Your task to perform on an android device: Open Maps and search for coffee Image 0: 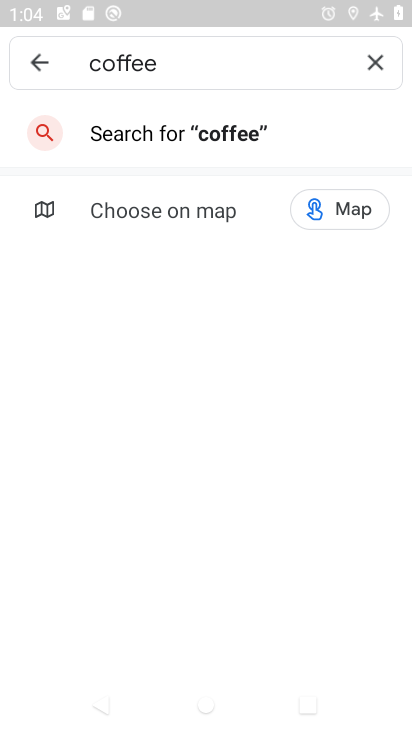
Step 0: press home button
Your task to perform on an android device: Open Maps and search for coffee Image 1: 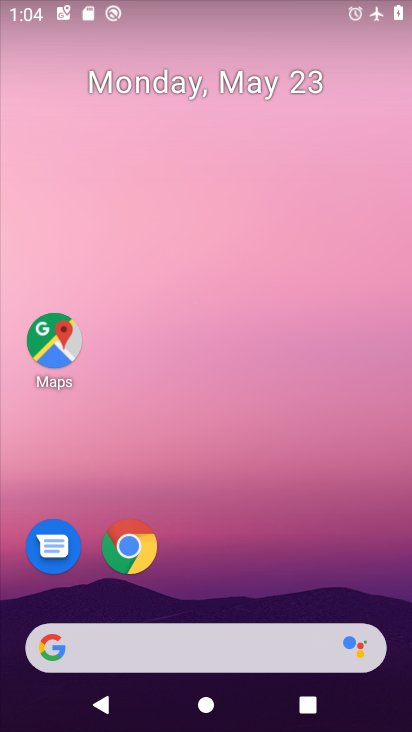
Step 1: click (57, 366)
Your task to perform on an android device: Open Maps and search for coffee Image 2: 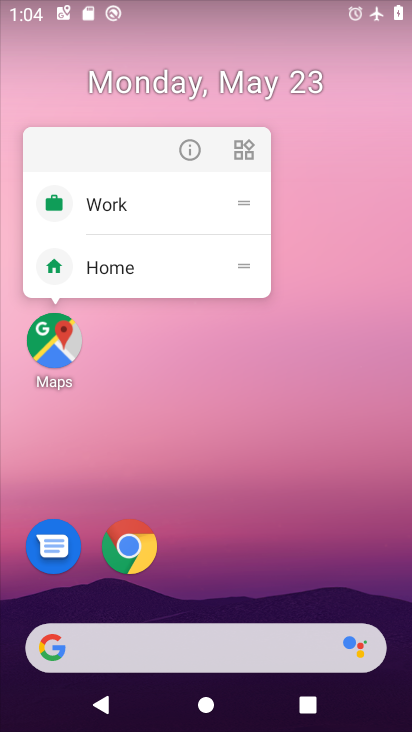
Step 2: click (67, 372)
Your task to perform on an android device: Open Maps and search for coffee Image 3: 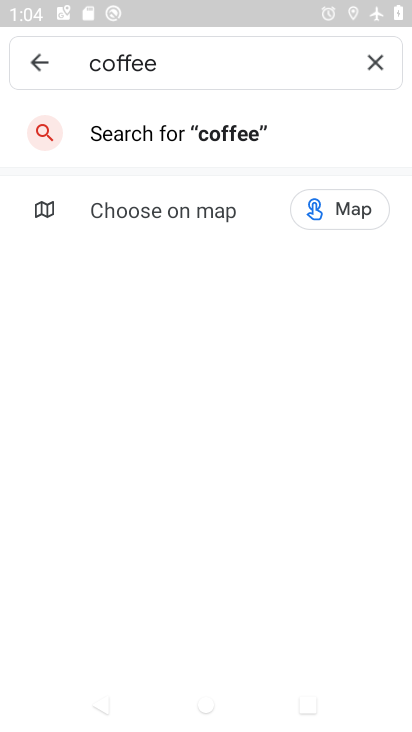
Step 3: task complete